Your task to perform on an android device: turn on location history Image 0: 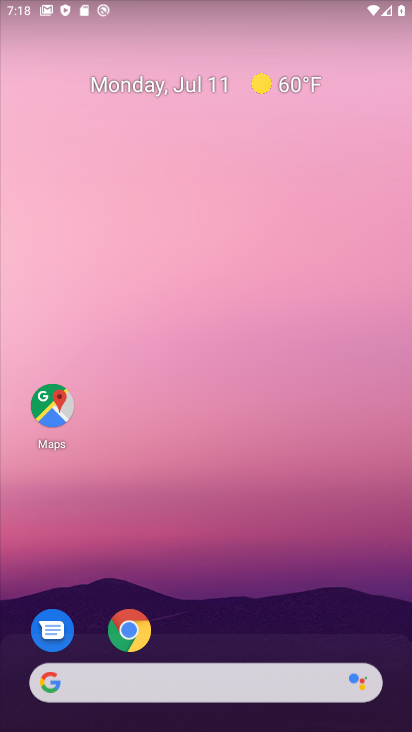
Step 0: click (54, 407)
Your task to perform on an android device: turn on location history Image 1: 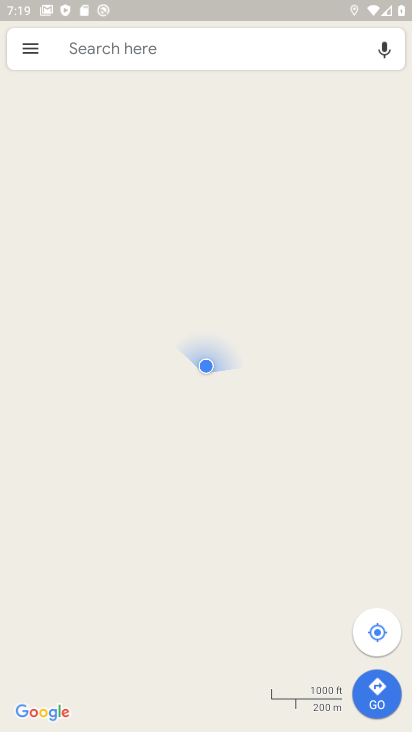
Step 1: click (28, 46)
Your task to perform on an android device: turn on location history Image 2: 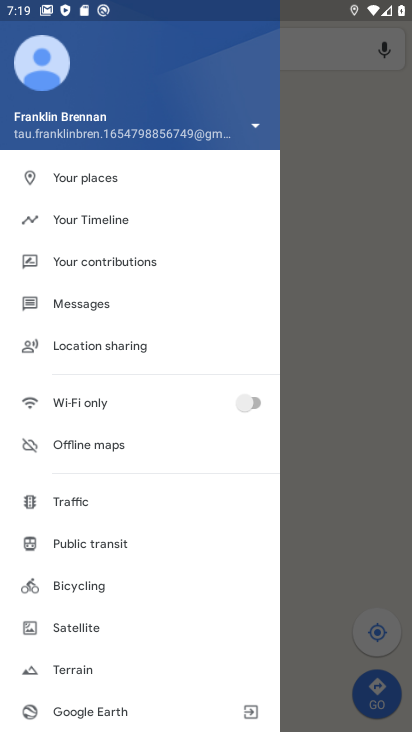
Step 2: drag from (146, 662) to (195, 263)
Your task to perform on an android device: turn on location history Image 3: 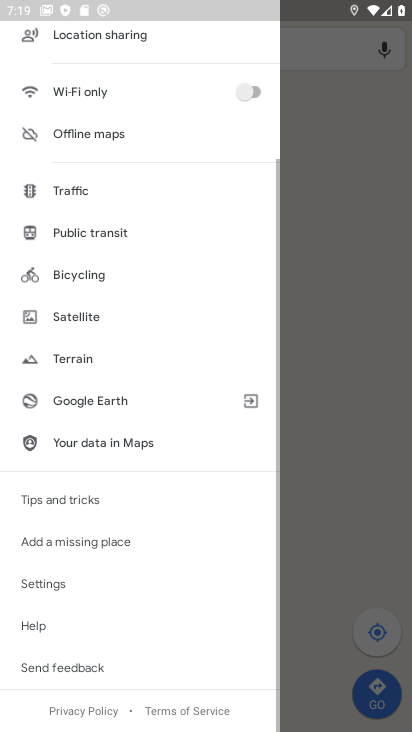
Step 3: click (43, 581)
Your task to perform on an android device: turn on location history Image 4: 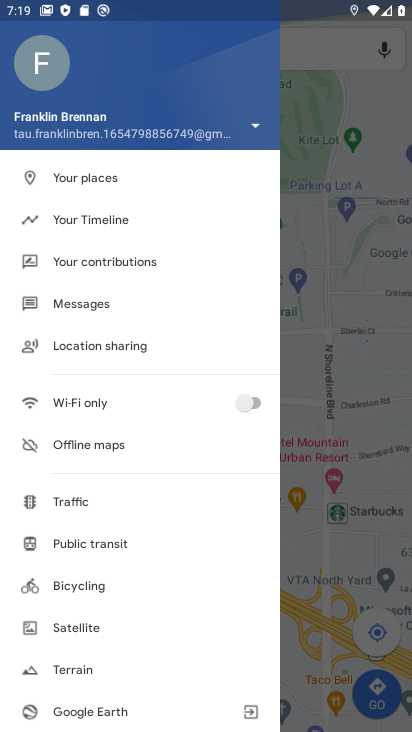
Step 4: drag from (163, 625) to (167, 180)
Your task to perform on an android device: turn on location history Image 5: 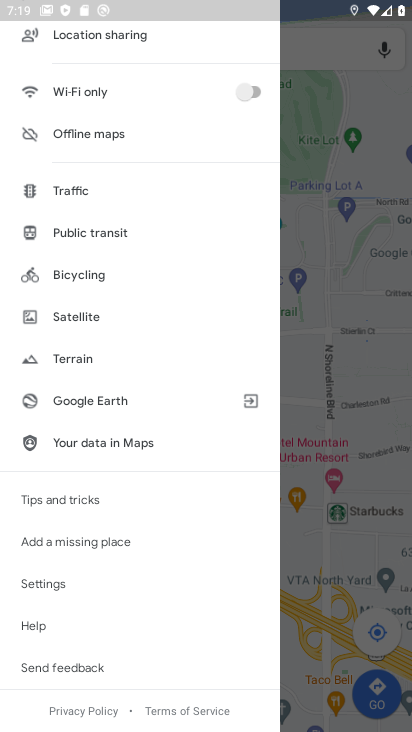
Step 5: click (53, 587)
Your task to perform on an android device: turn on location history Image 6: 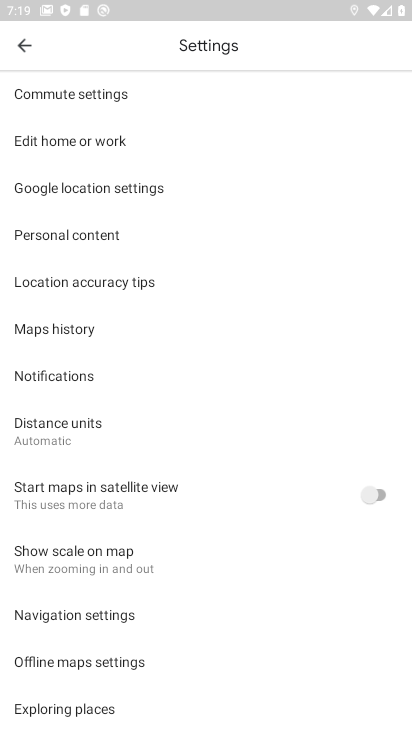
Step 6: click (61, 234)
Your task to perform on an android device: turn on location history Image 7: 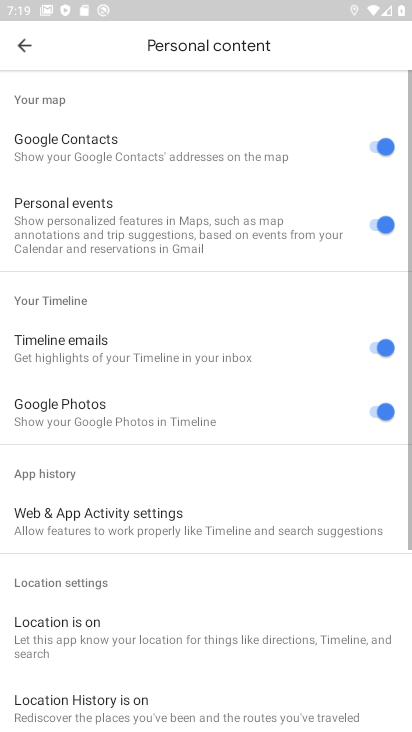
Step 7: task complete